Your task to perform on an android device: turn on translation in the chrome app Image 0: 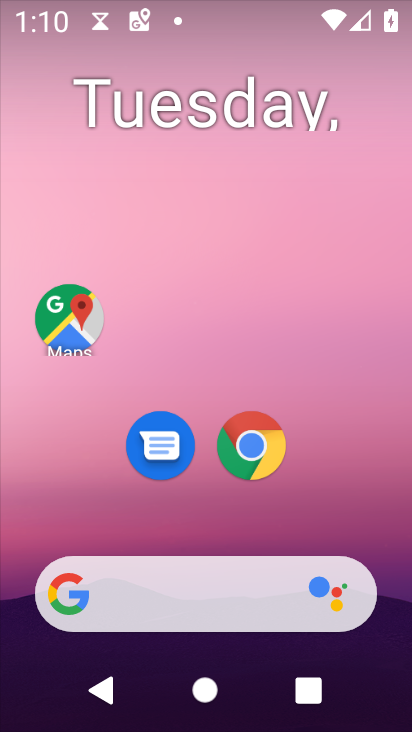
Step 0: drag from (332, 583) to (259, 24)
Your task to perform on an android device: turn on translation in the chrome app Image 1: 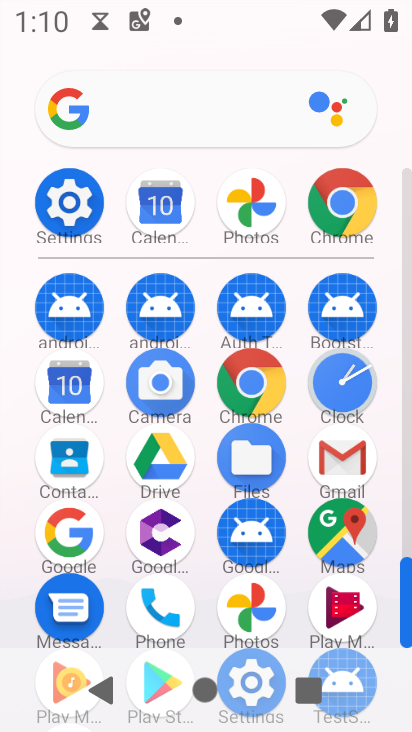
Step 1: click (234, 398)
Your task to perform on an android device: turn on translation in the chrome app Image 2: 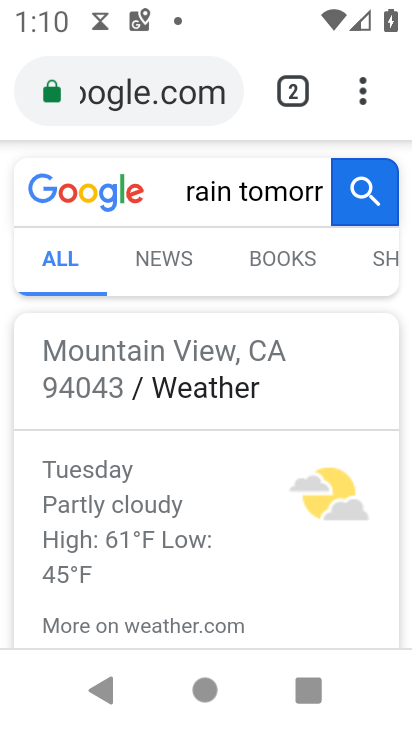
Step 2: drag from (357, 86) to (271, 473)
Your task to perform on an android device: turn on translation in the chrome app Image 3: 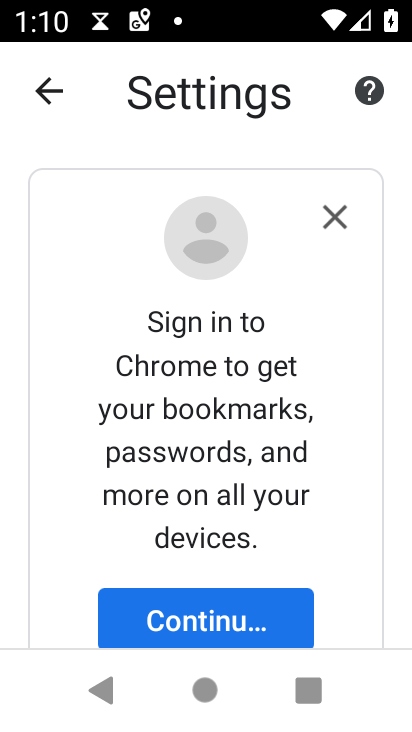
Step 3: drag from (346, 639) to (366, 99)
Your task to perform on an android device: turn on translation in the chrome app Image 4: 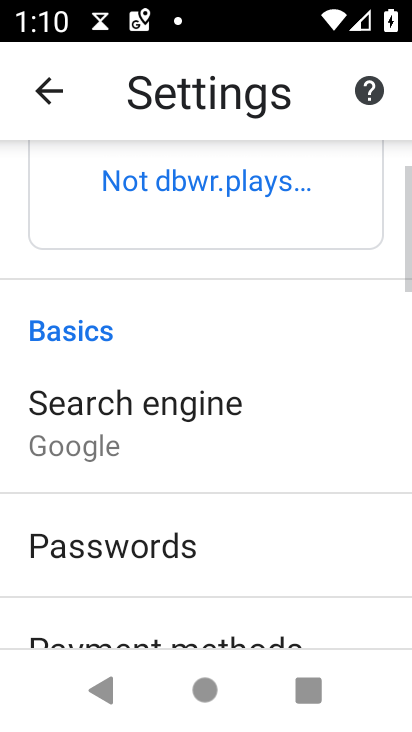
Step 4: drag from (260, 650) to (338, 149)
Your task to perform on an android device: turn on translation in the chrome app Image 5: 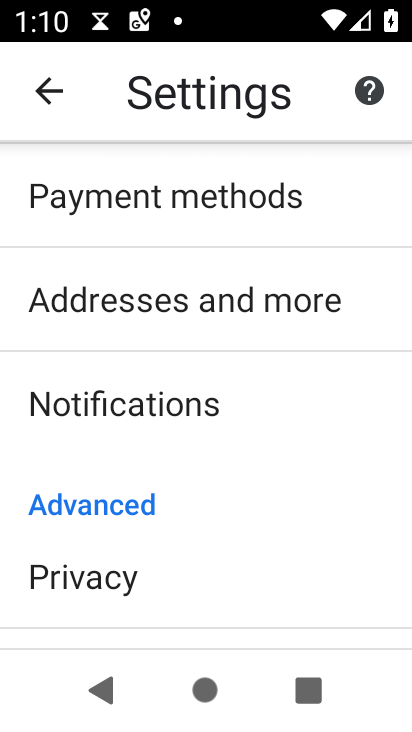
Step 5: drag from (181, 619) to (268, 164)
Your task to perform on an android device: turn on translation in the chrome app Image 6: 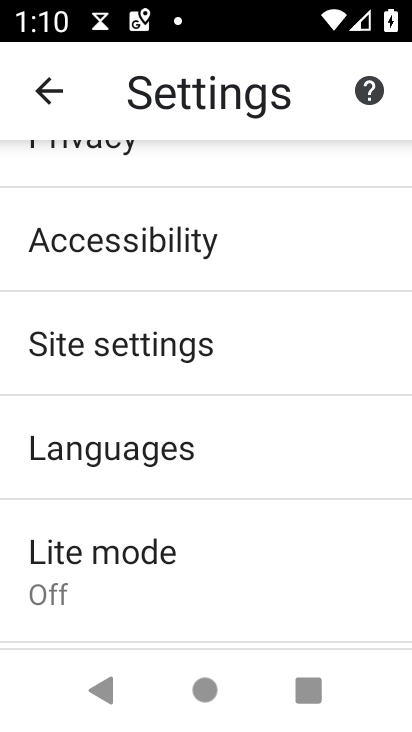
Step 6: click (244, 457)
Your task to perform on an android device: turn on translation in the chrome app Image 7: 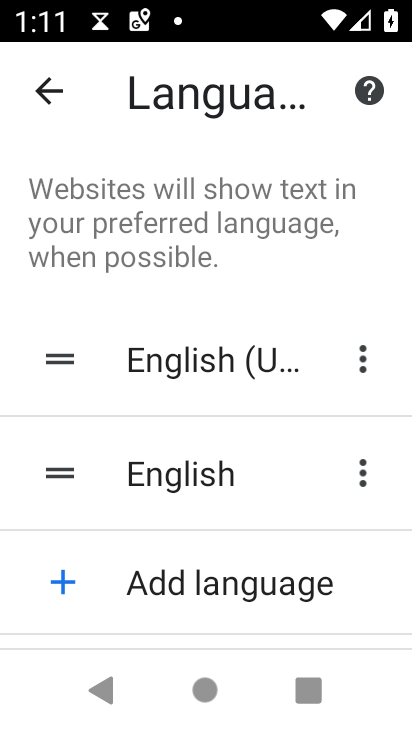
Step 7: task complete